Your task to perform on an android device: search for starred emails in the gmail app Image 0: 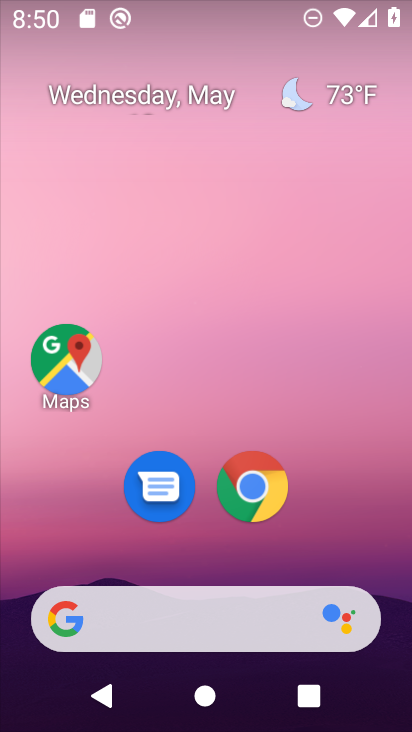
Step 0: drag from (399, 617) to (319, 152)
Your task to perform on an android device: search for starred emails in the gmail app Image 1: 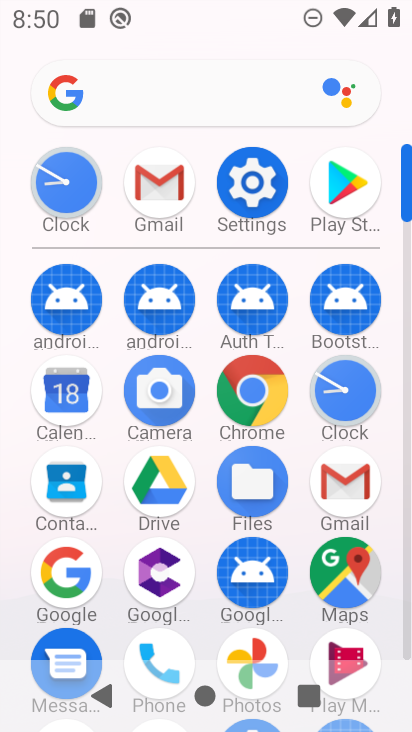
Step 1: click (410, 640)
Your task to perform on an android device: search for starred emails in the gmail app Image 2: 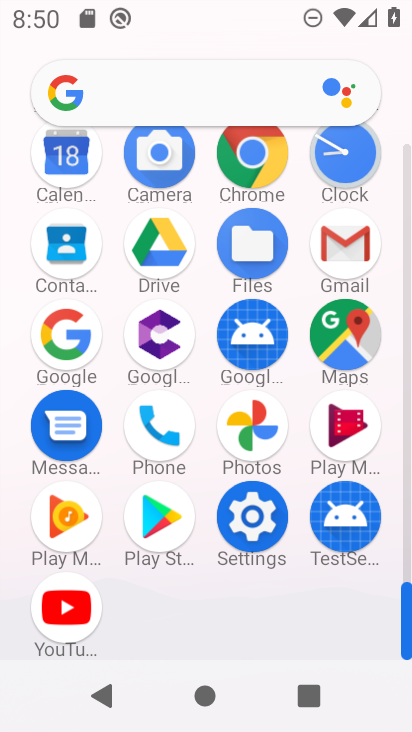
Step 2: click (341, 239)
Your task to perform on an android device: search for starred emails in the gmail app Image 3: 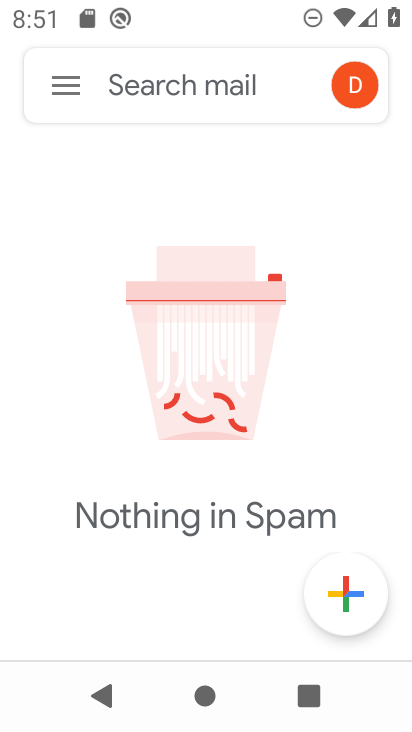
Step 3: click (73, 98)
Your task to perform on an android device: search for starred emails in the gmail app Image 4: 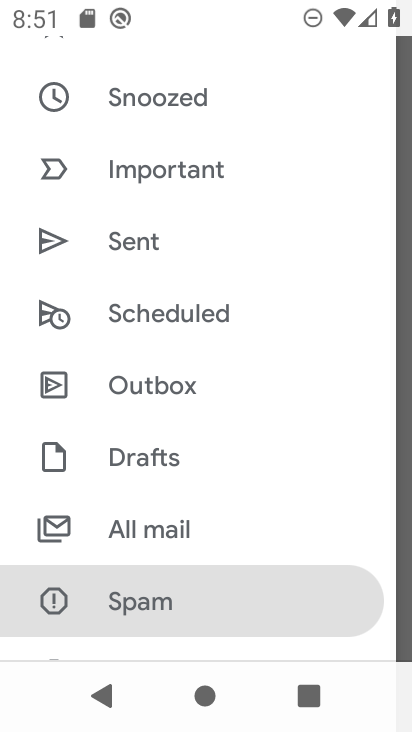
Step 4: drag from (275, 348) to (263, 586)
Your task to perform on an android device: search for starred emails in the gmail app Image 5: 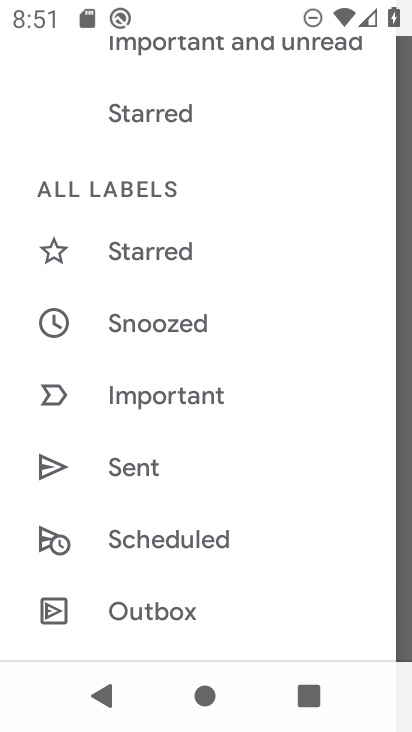
Step 5: click (147, 258)
Your task to perform on an android device: search for starred emails in the gmail app Image 6: 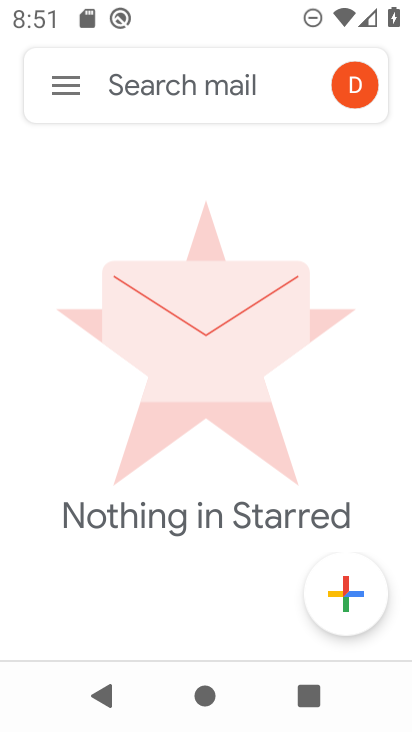
Step 6: task complete